Your task to perform on an android device: Open battery settings Image 0: 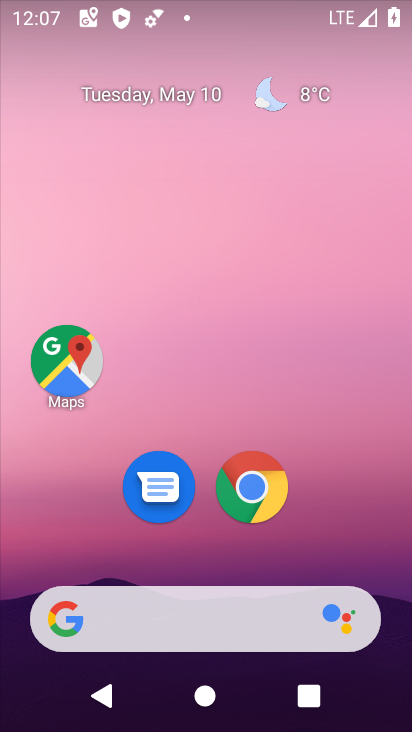
Step 0: drag from (214, 555) to (240, 29)
Your task to perform on an android device: Open battery settings Image 1: 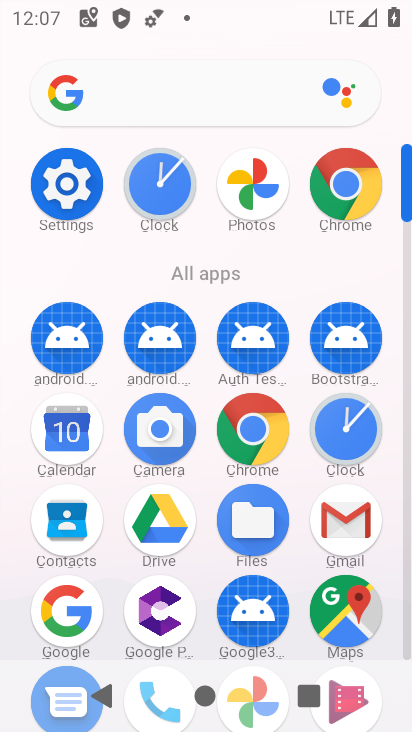
Step 1: click (63, 173)
Your task to perform on an android device: Open battery settings Image 2: 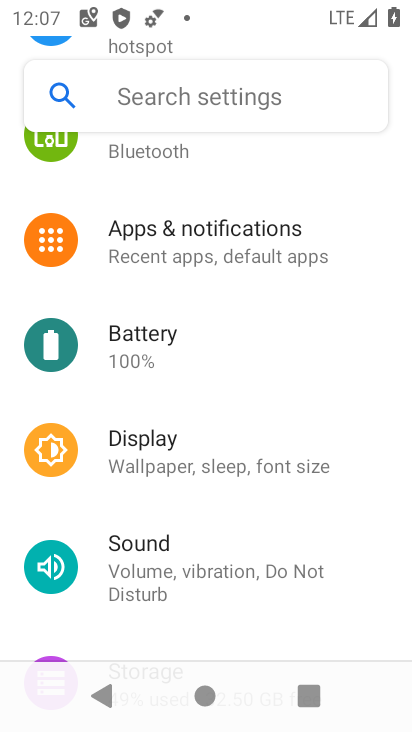
Step 2: click (185, 343)
Your task to perform on an android device: Open battery settings Image 3: 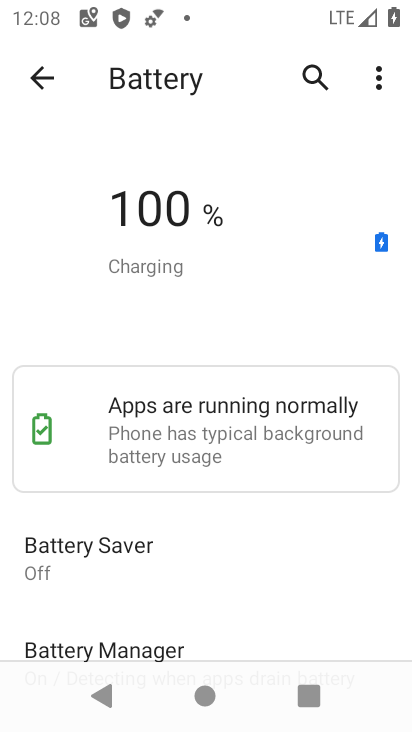
Step 3: task complete